Your task to perform on an android device: Open Yahoo.com Image 0: 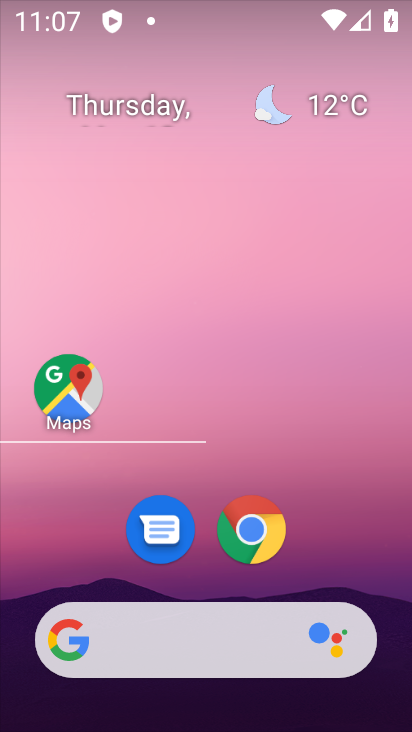
Step 0: drag from (331, 586) to (320, 294)
Your task to perform on an android device: Open Yahoo.com Image 1: 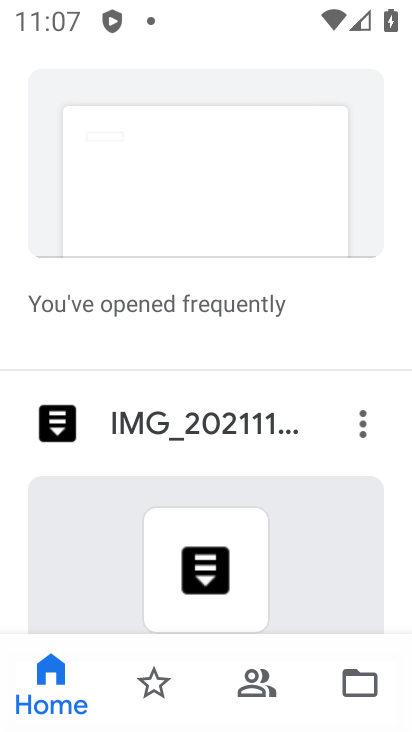
Step 1: press home button
Your task to perform on an android device: Open Yahoo.com Image 2: 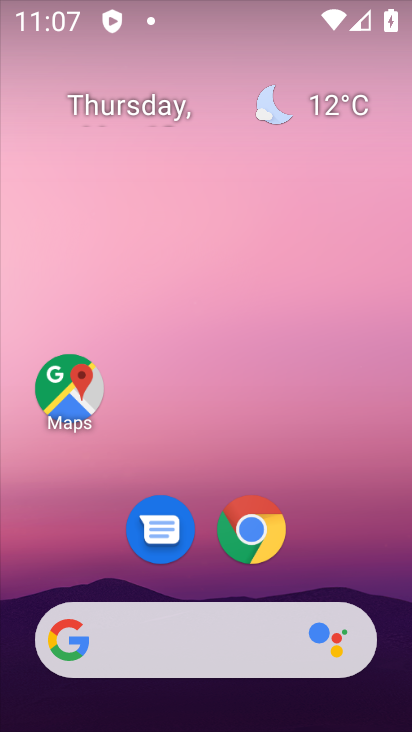
Step 2: drag from (307, 599) to (330, 271)
Your task to perform on an android device: Open Yahoo.com Image 3: 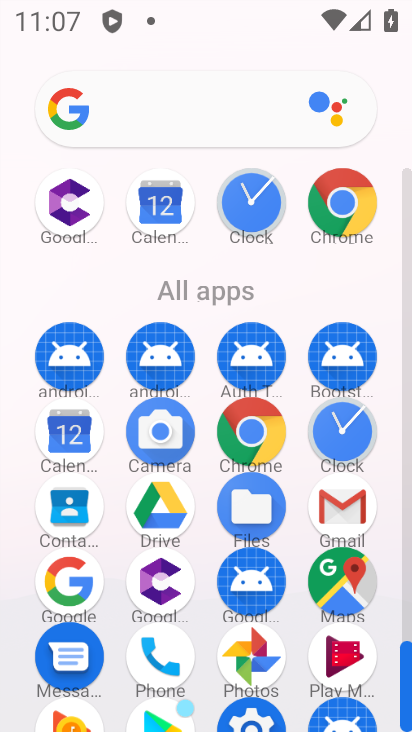
Step 3: click (219, 421)
Your task to perform on an android device: Open Yahoo.com Image 4: 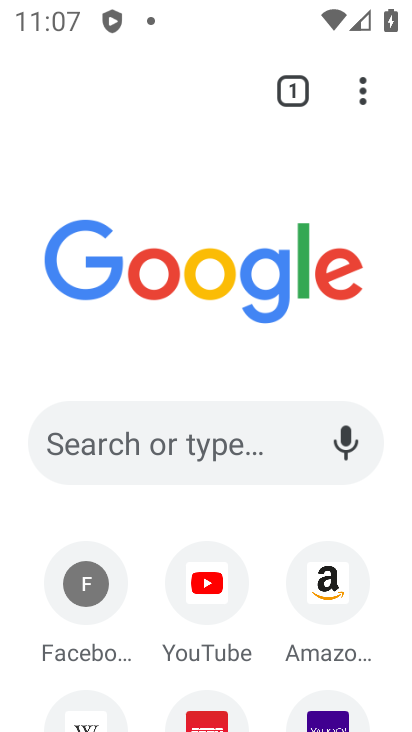
Step 4: drag from (255, 610) to (314, 299)
Your task to perform on an android device: Open Yahoo.com Image 5: 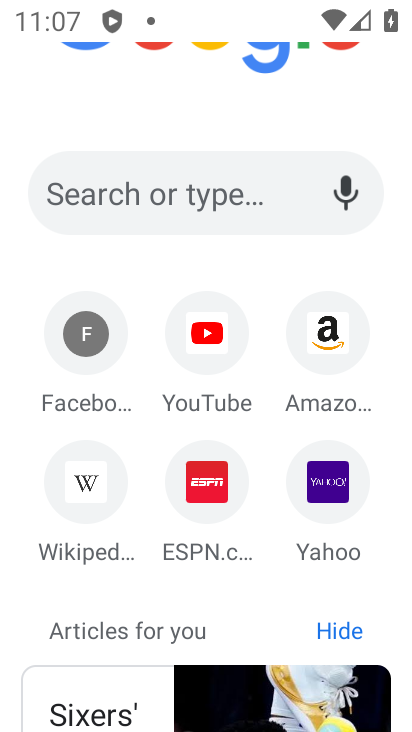
Step 5: click (313, 488)
Your task to perform on an android device: Open Yahoo.com Image 6: 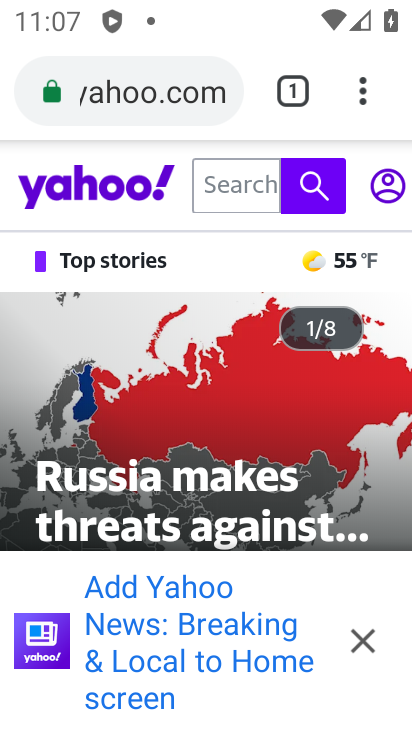
Step 6: task complete